Your task to perform on an android device: empty trash in google photos Image 0: 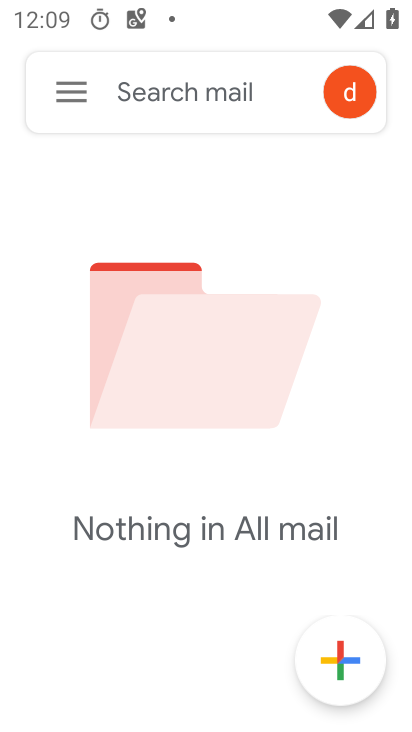
Step 0: press home button
Your task to perform on an android device: empty trash in google photos Image 1: 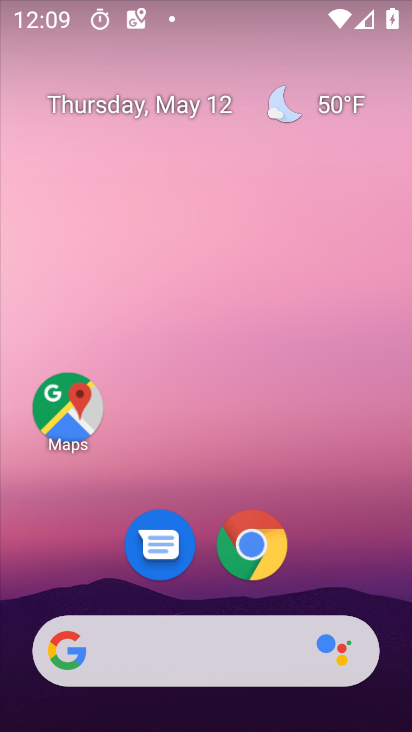
Step 1: drag from (238, 666) to (209, 102)
Your task to perform on an android device: empty trash in google photos Image 2: 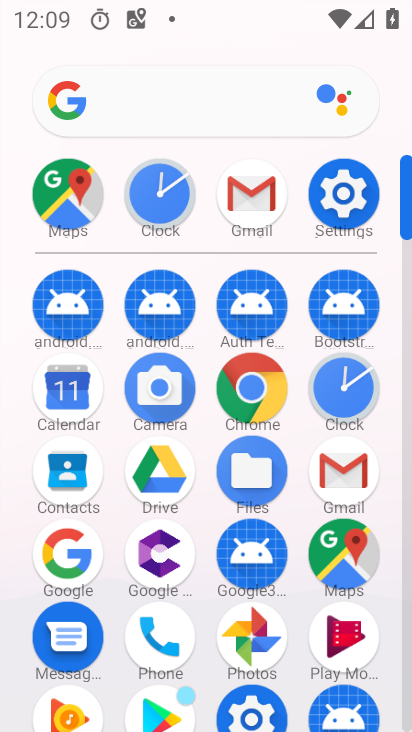
Step 2: click (258, 637)
Your task to perform on an android device: empty trash in google photos Image 3: 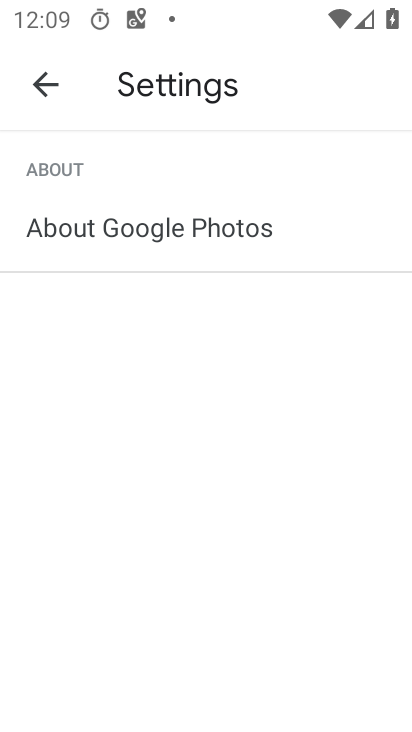
Step 3: click (48, 87)
Your task to perform on an android device: empty trash in google photos Image 4: 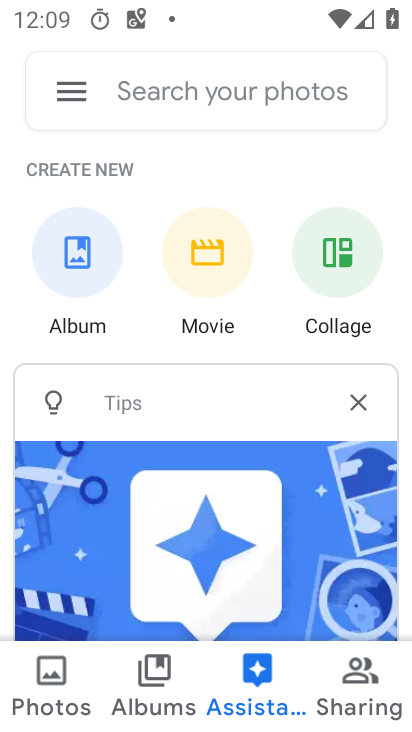
Step 4: click (75, 93)
Your task to perform on an android device: empty trash in google photos Image 5: 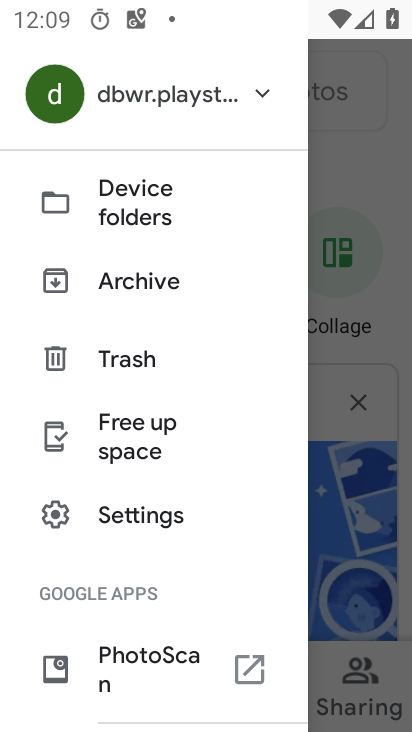
Step 5: click (107, 358)
Your task to perform on an android device: empty trash in google photos Image 6: 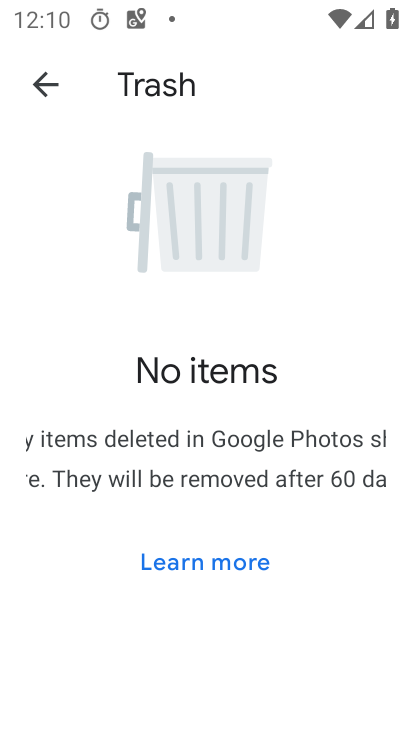
Step 6: task complete